Your task to perform on an android device: change notifications settings Image 0: 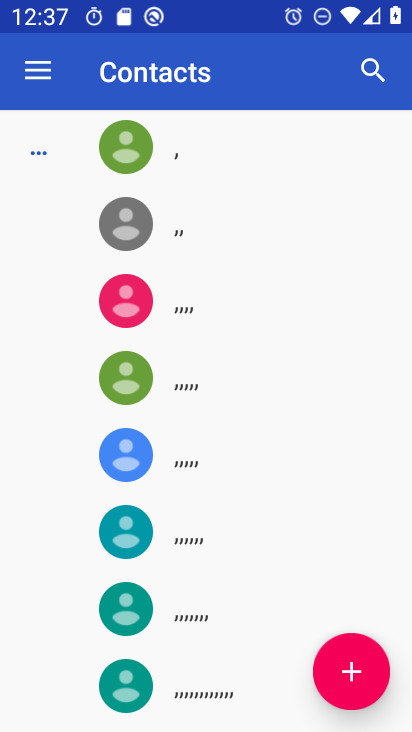
Step 0: drag from (169, 527) to (168, 256)
Your task to perform on an android device: change notifications settings Image 1: 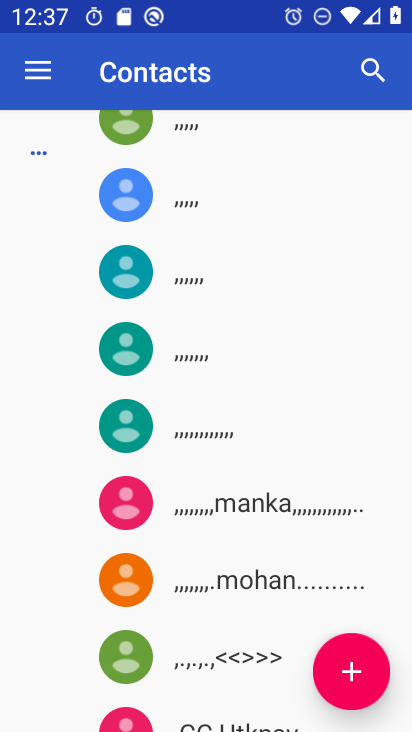
Step 1: press back button
Your task to perform on an android device: change notifications settings Image 2: 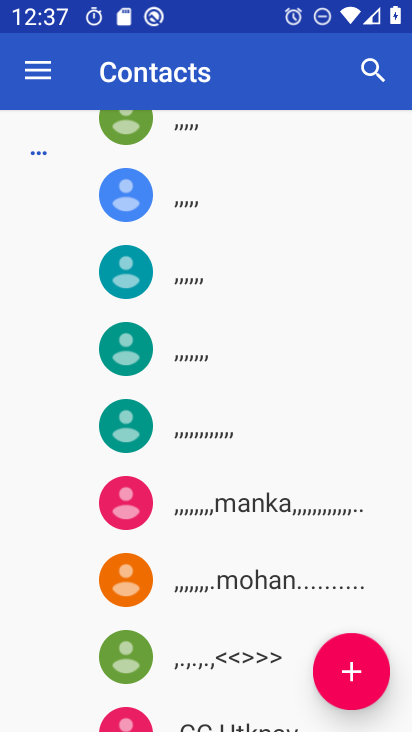
Step 2: press back button
Your task to perform on an android device: change notifications settings Image 3: 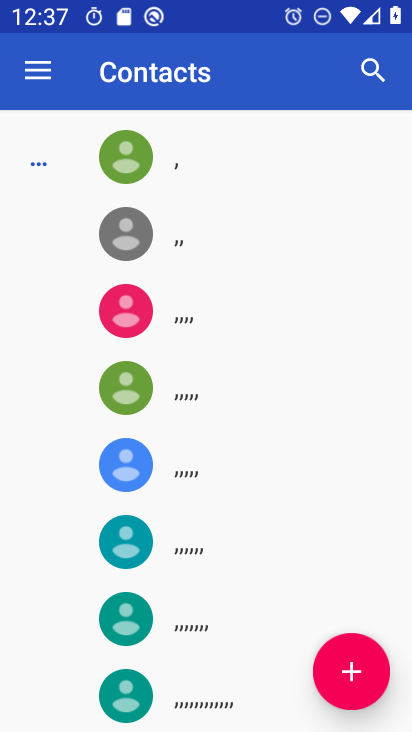
Step 3: press home button
Your task to perform on an android device: change notifications settings Image 4: 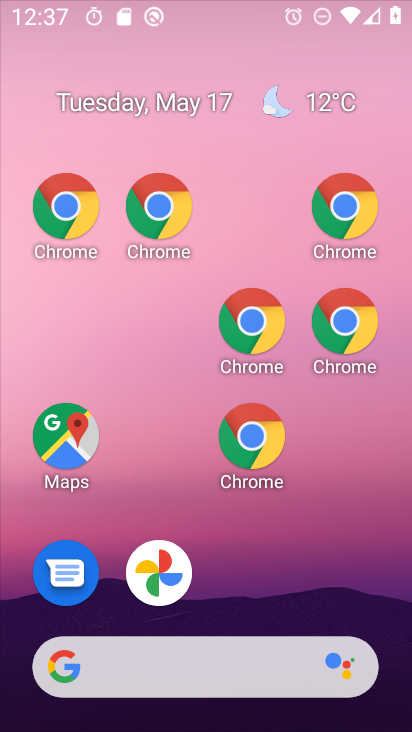
Step 4: drag from (308, 631) to (232, 110)
Your task to perform on an android device: change notifications settings Image 5: 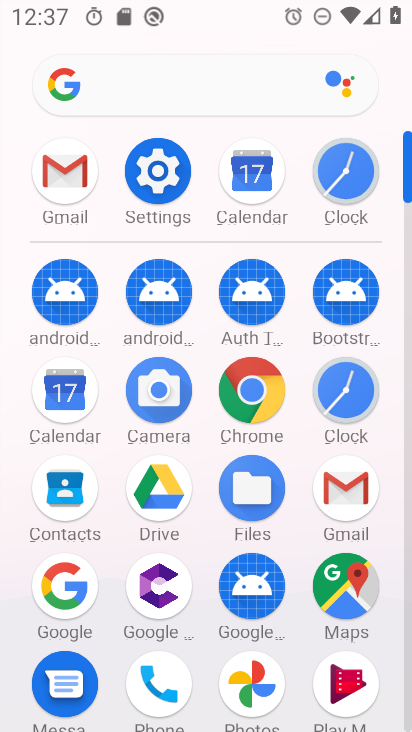
Step 5: click (164, 166)
Your task to perform on an android device: change notifications settings Image 6: 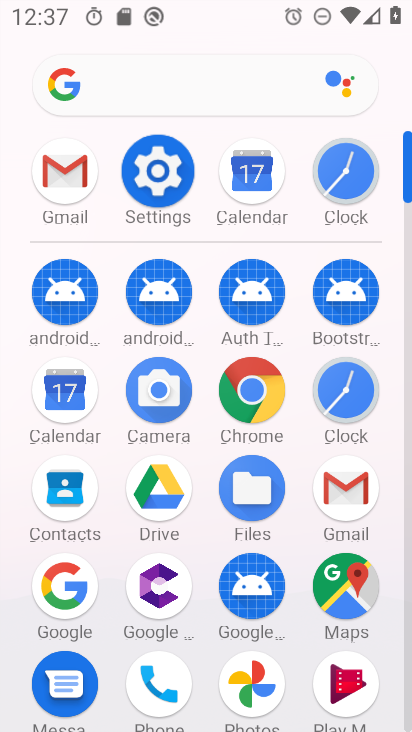
Step 6: click (178, 202)
Your task to perform on an android device: change notifications settings Image 7: 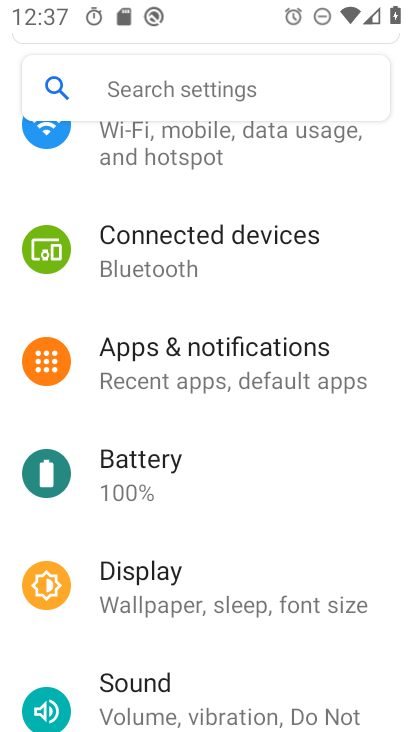
Step 7: click (244, 364)
Your task to perform on an android device: change notifications settings Image 8: 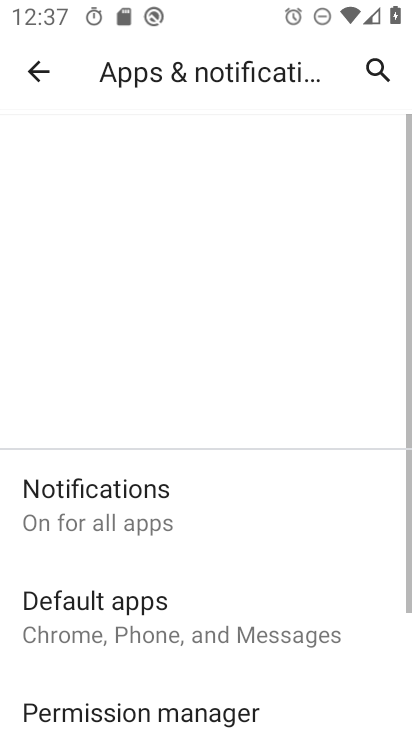
Step 8: click (241, 369)
Your task to perform on an android device: change notifications settings Image 9: 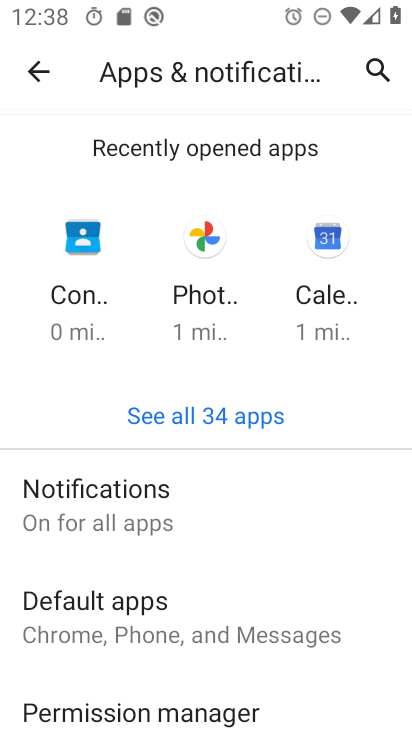
Step 9: click (102, 517)
Your task to perform on an android device: change notifications settings Image 10: 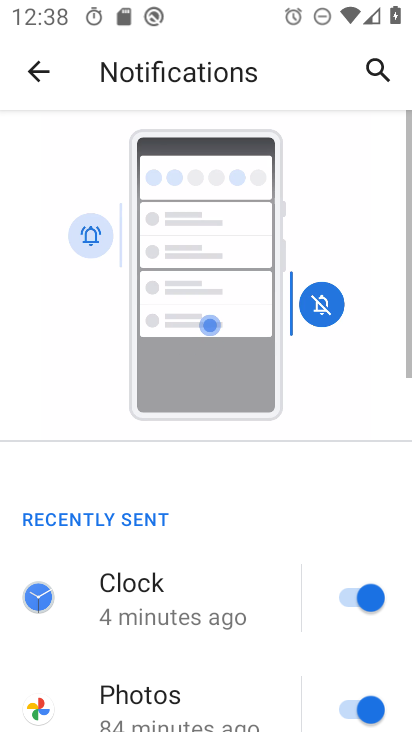
Step 10: drag from (218, 624) to (178, 29)
Your task to perform on an android device: change notifications settings Image 11: 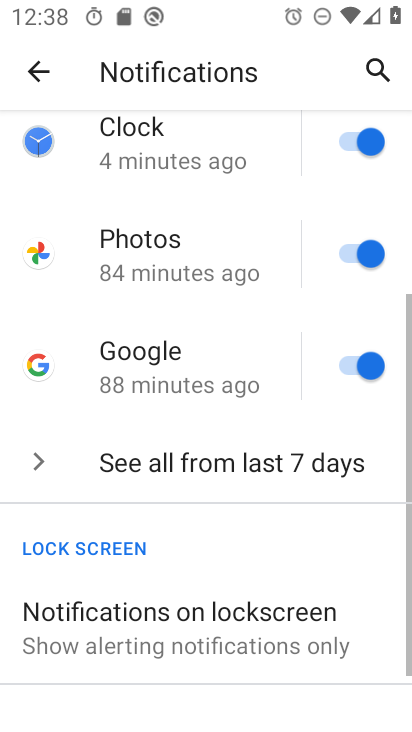
Step 11: drag from (229, 413) to (247, 15)
Your task to perform on an android device: change notifications settings Image 12: 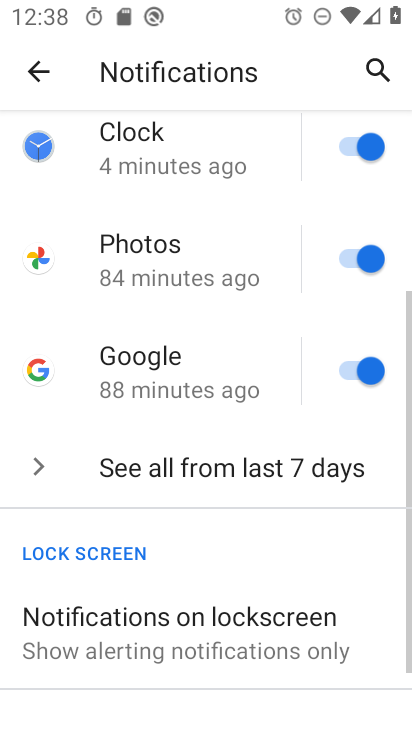
Step 12: drag from (244, 617) to (330, 64)
Your task to perform on an android device: change notifications settings Image 13: 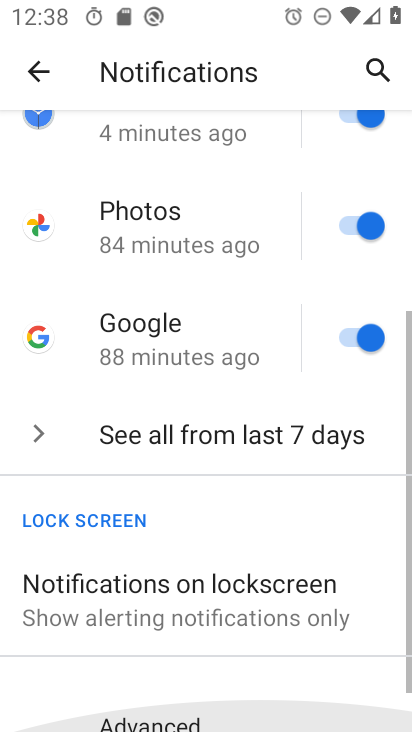
Step 13: drag from (272, 515) to (277, 74)
Your task to perform on an android device: change notifications settings Image 14: 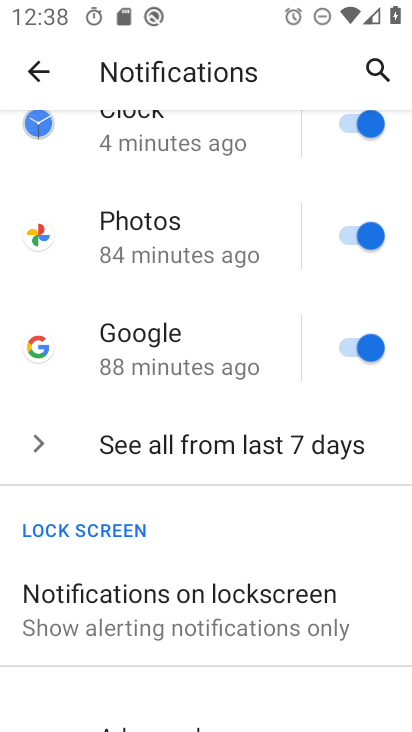
Step 14: drag from (223, 604) to (236, 173)
Your task to perform on an android device: change notifications settings Image 15: 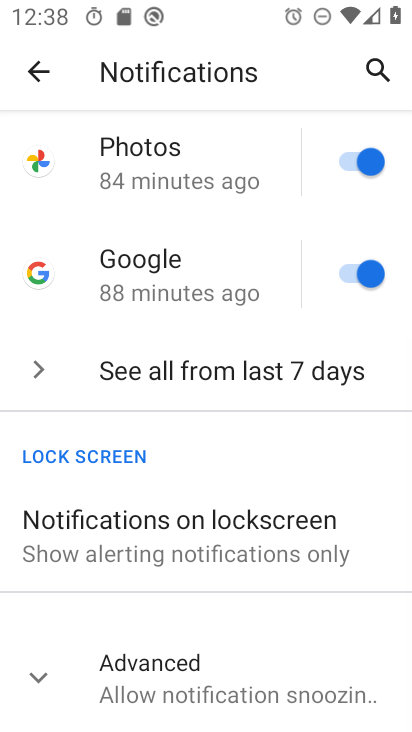
Step 15: drag from (255, 640) to (185, 144)
Your task to perform on an android device: change notifications settings Image 16: 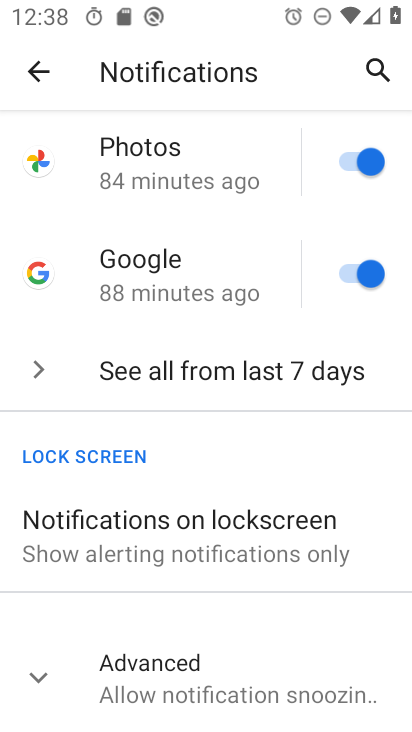
Step 16: click (195, 679)
Your task to perform on an android device: change notifications settings Image 17: 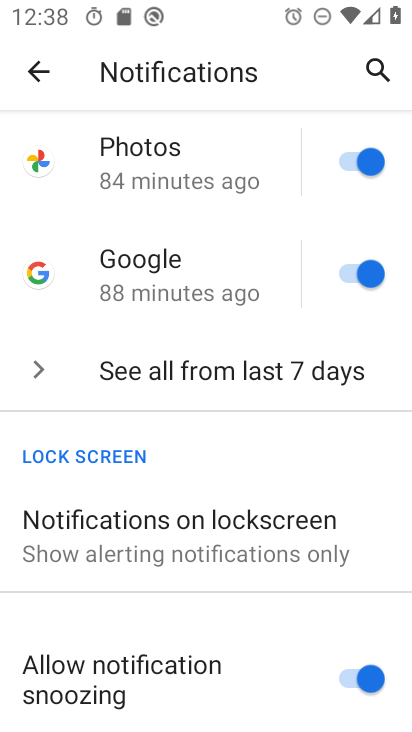
Step 17: click (371, 680)
Your task to perform on an android device: change notifications settings Image 18: 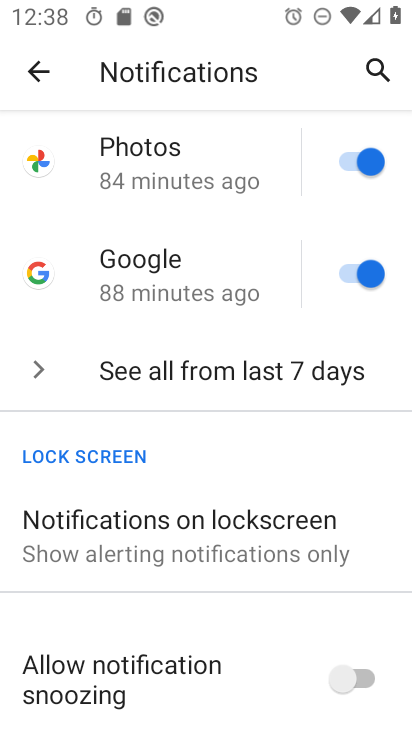
Step 18: drag from (293, 679) to (289, 216)
Your task to perform on an android device: change notifications settings Image 19: 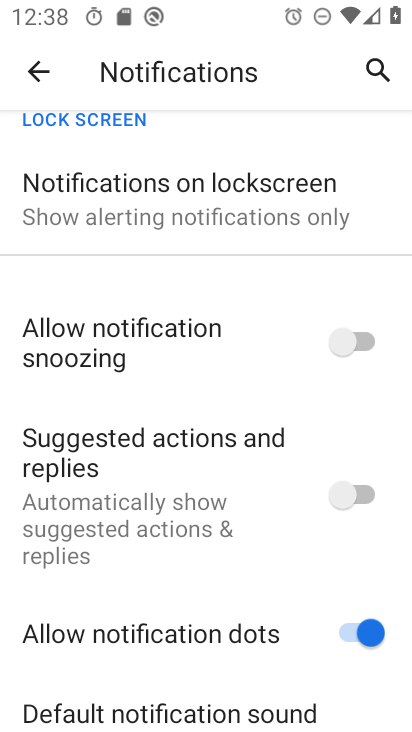
Step 19: drag from (274, 493) to (309, 265)
Your task to perform on an android device: change notifications settings Image 20: 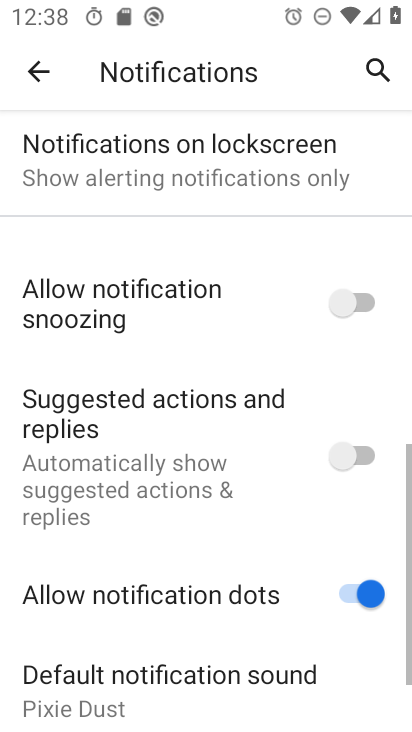
Step 20: click (375, 634)
Your task to perform on an android device: change notifications settings Image 21: 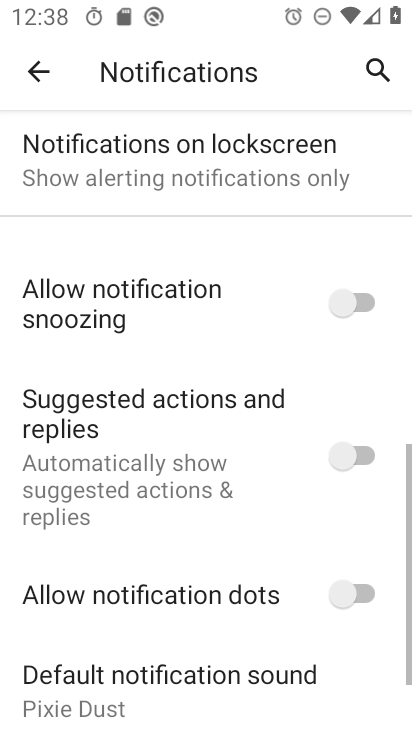
Step 21: click (369, 590)
Your task to perform on an android device: change notifications settings Image 22: 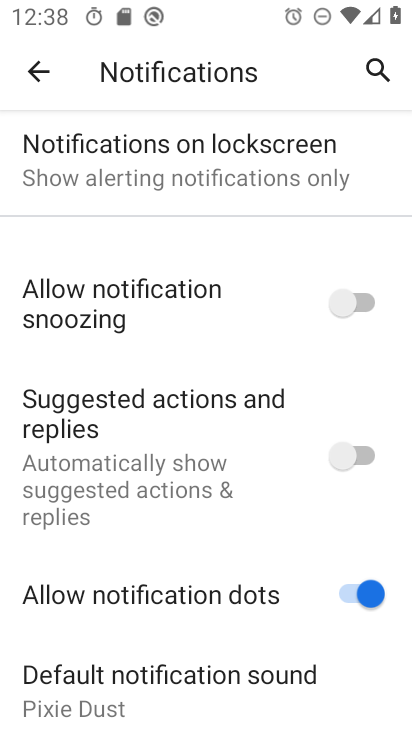
Step 22: task complete